Your task to perform on an android device: turn vacation reply on in the gmail app Image 0: 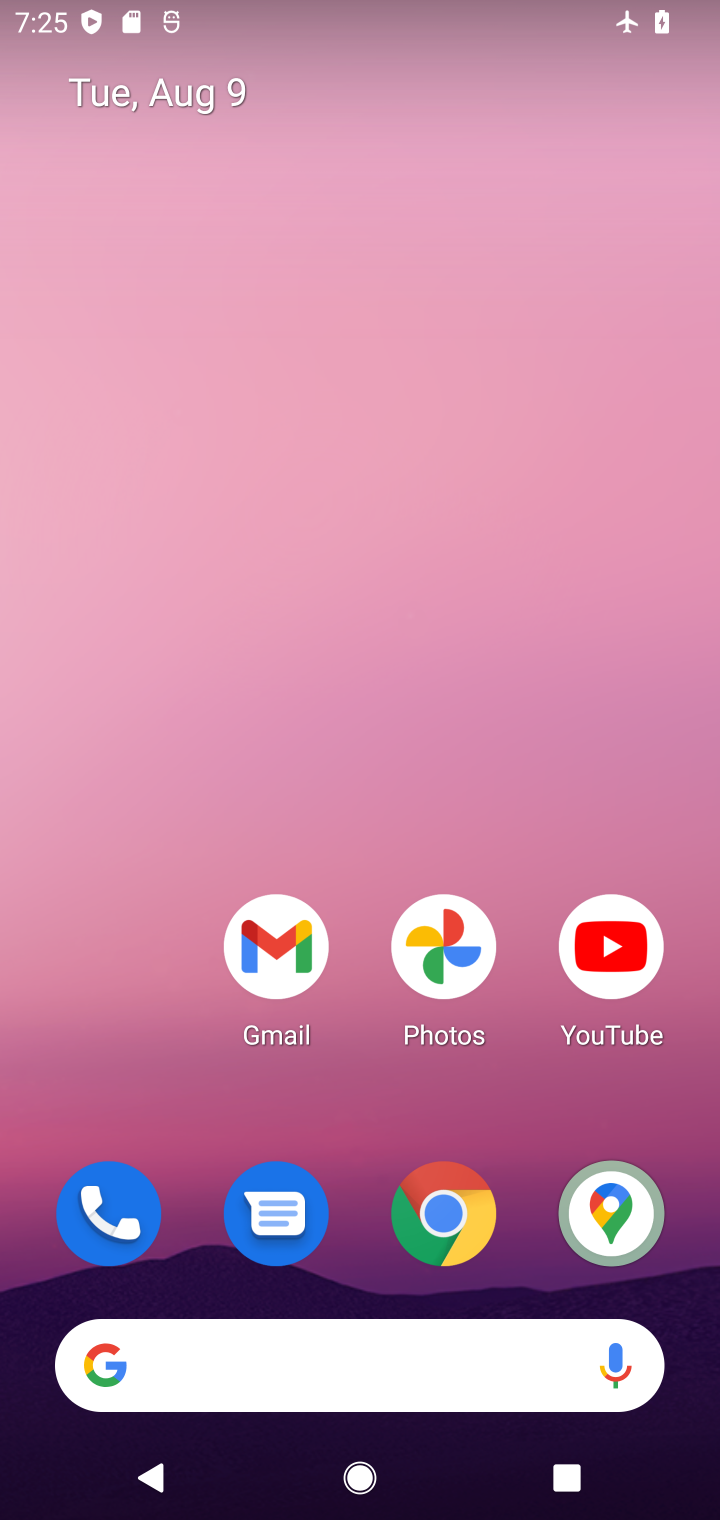
Step 0: drag from (379, 1276) to (322, 66)
Your task to perform on an android device: turn vacation reply on in the gmail app Image 1: 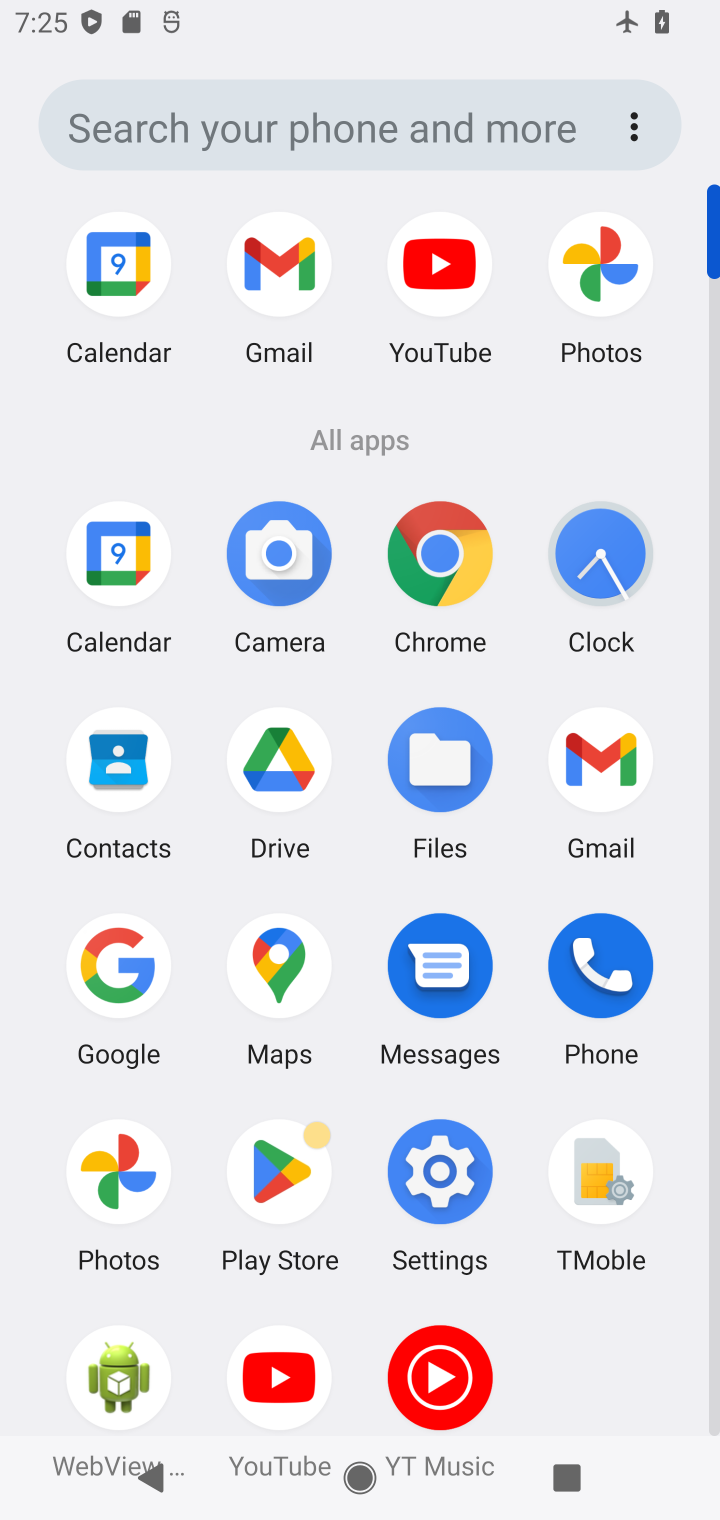
Step 1: click (561, 824)
Your task to perform on an android device: turn vacation reply on in the gmail app Image 2: 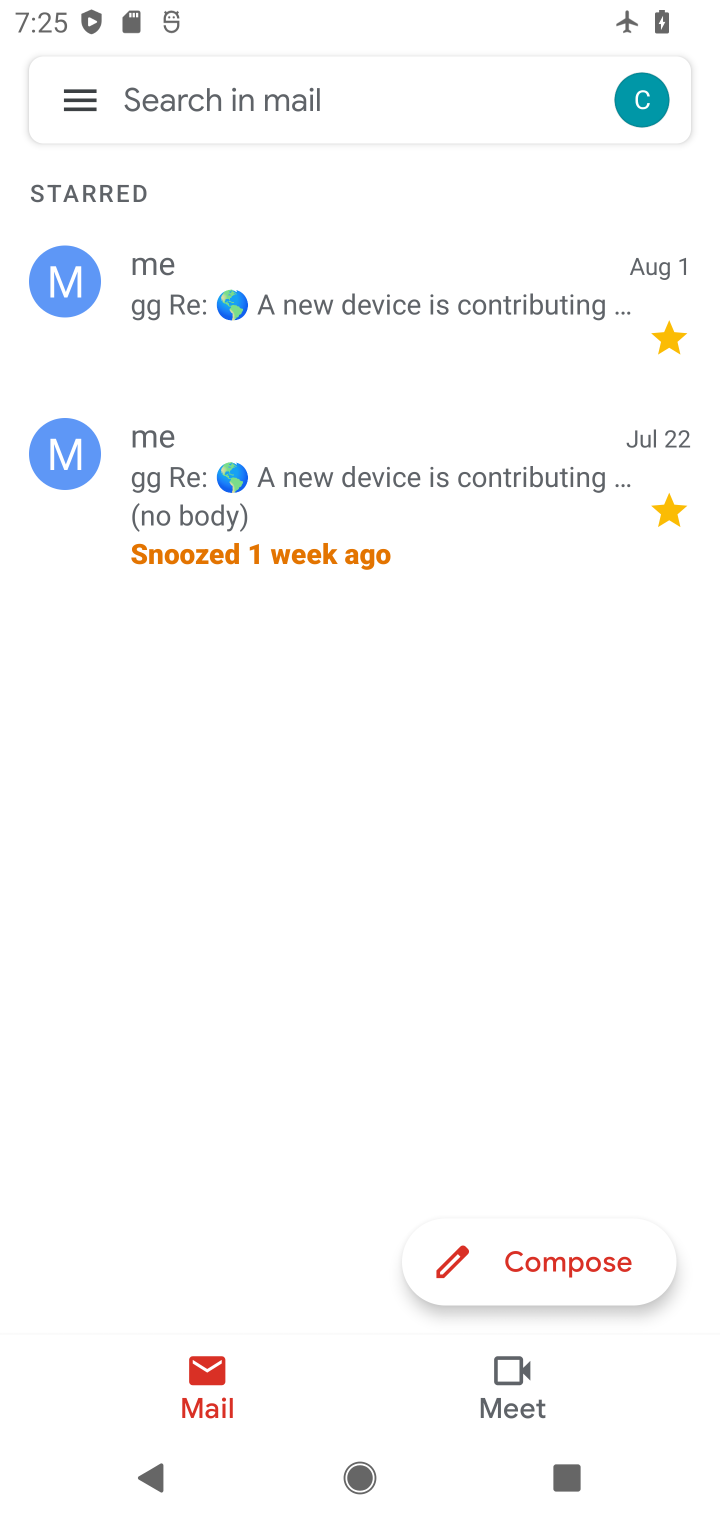
Step 2: click (94, 97)
Your task to perform on an android device: turn vacation reply on in the gmail app Image 3: 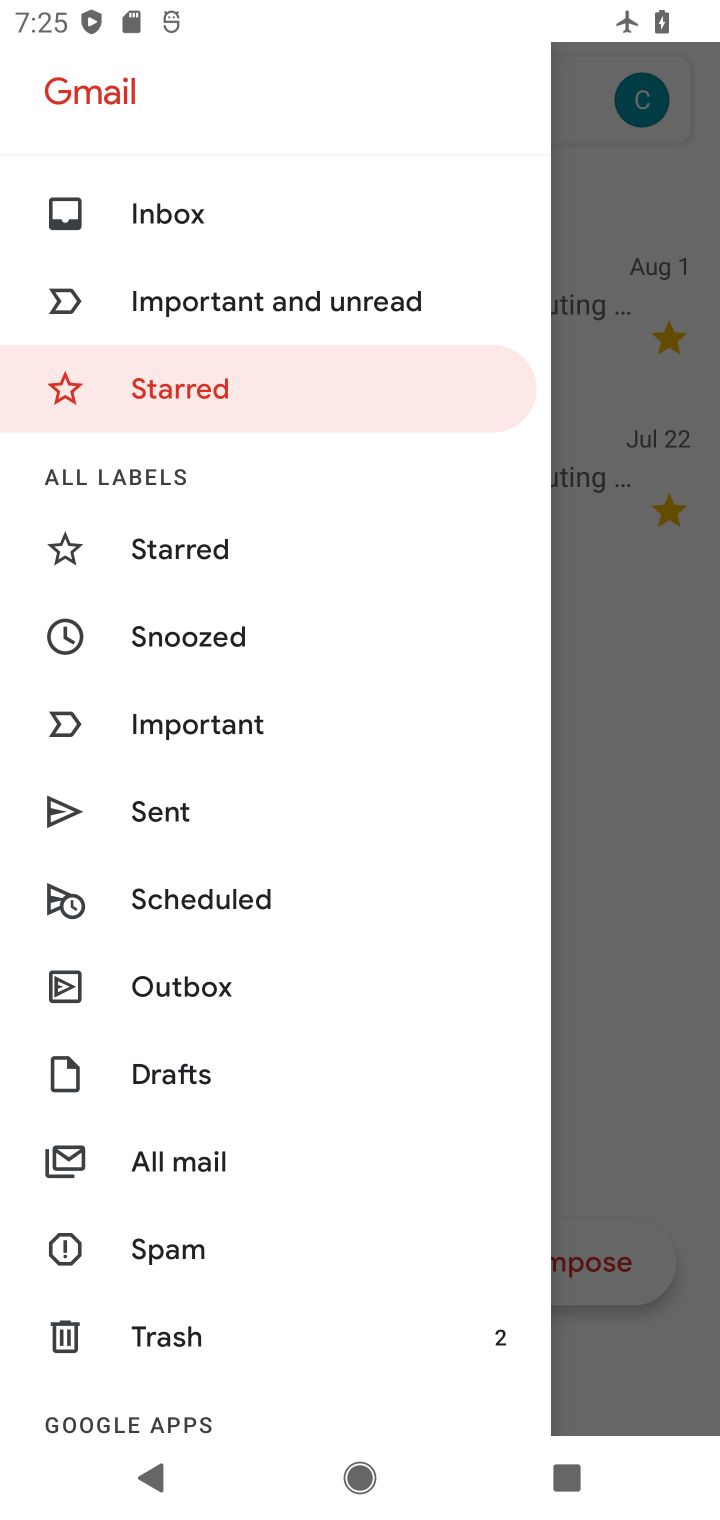
Step 3: drag from (275, 1105) to (234, 321)
Your task to perform on an android device: turn vacation reply on in the gmail app Image 4: 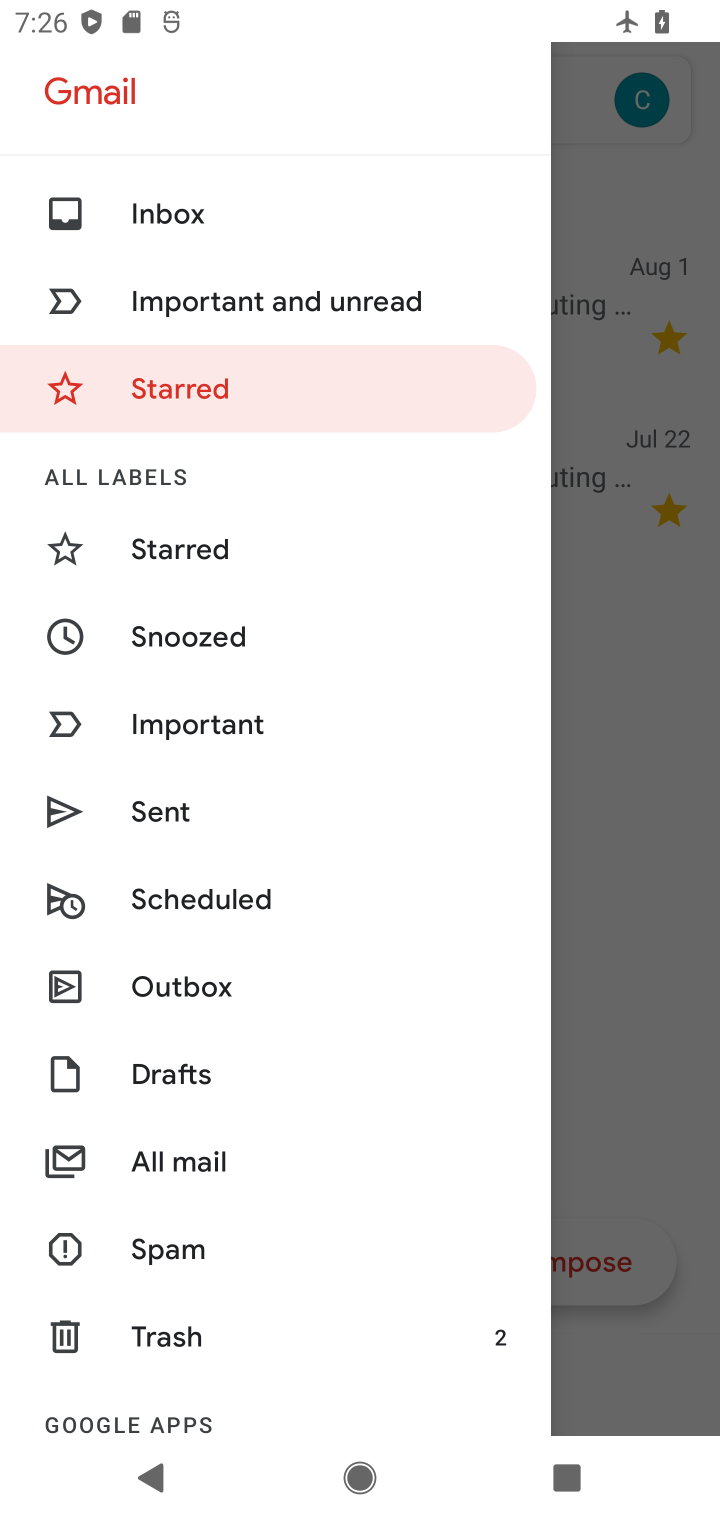
Step 4: drag from (409, 1300) to (363, 295)
Your task to perform on an android device: turn vacation reply on in the gmail app Image 5: 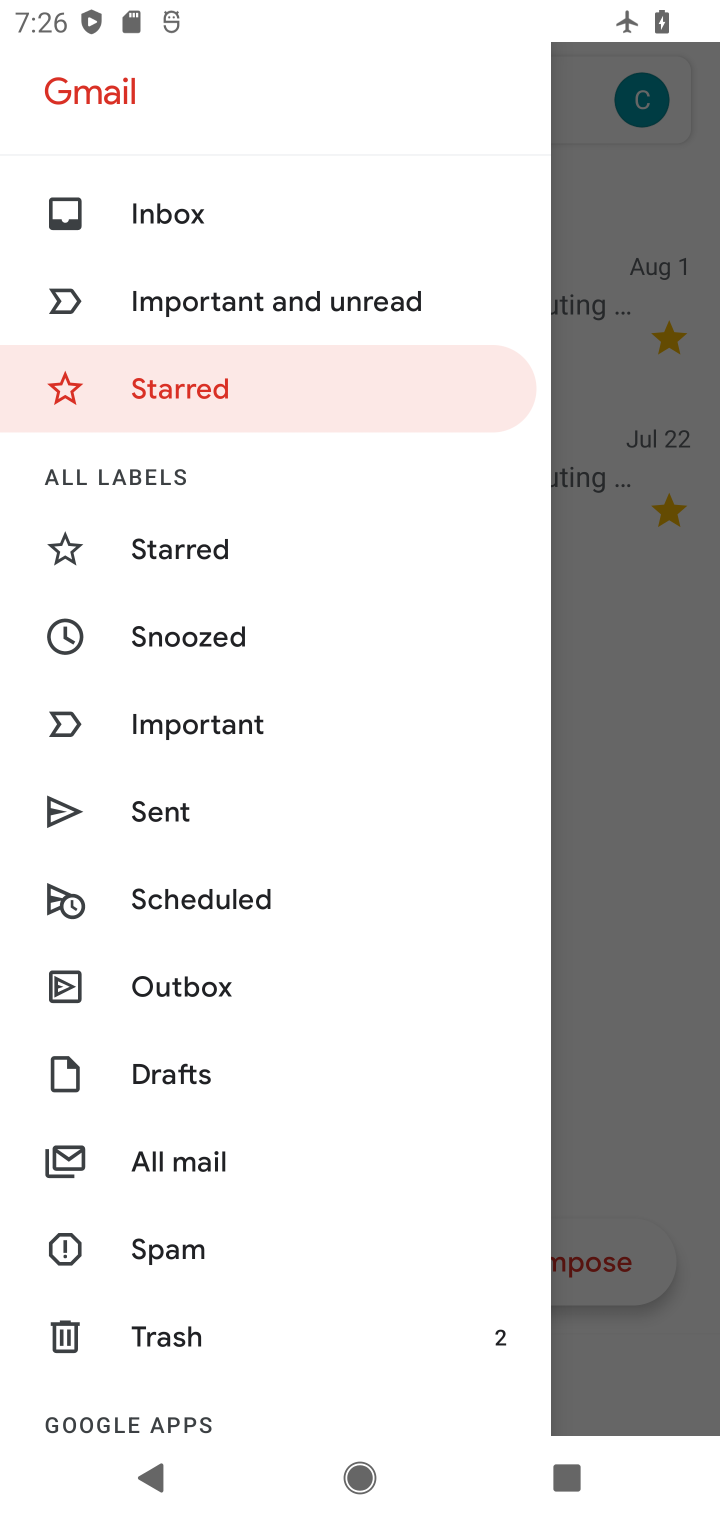
Step 5: drag from (357, 1191) to (396, 212)
Your task to perform on an android device: turn vacation reply on in the gmail app Image 6: 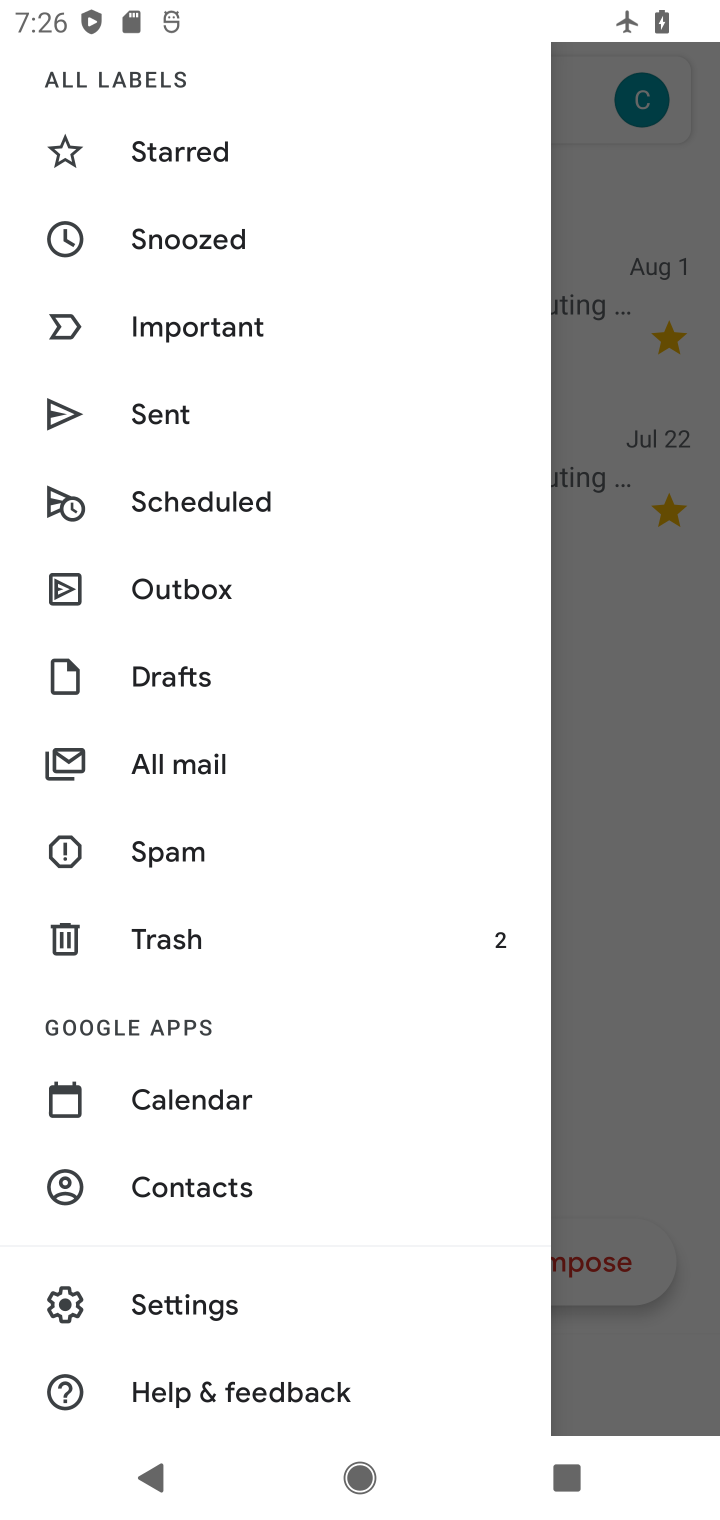
Step 6: click (192, 1282)
Your task to perform on an android device: turn vacation reply on in the gmail app Image 7: 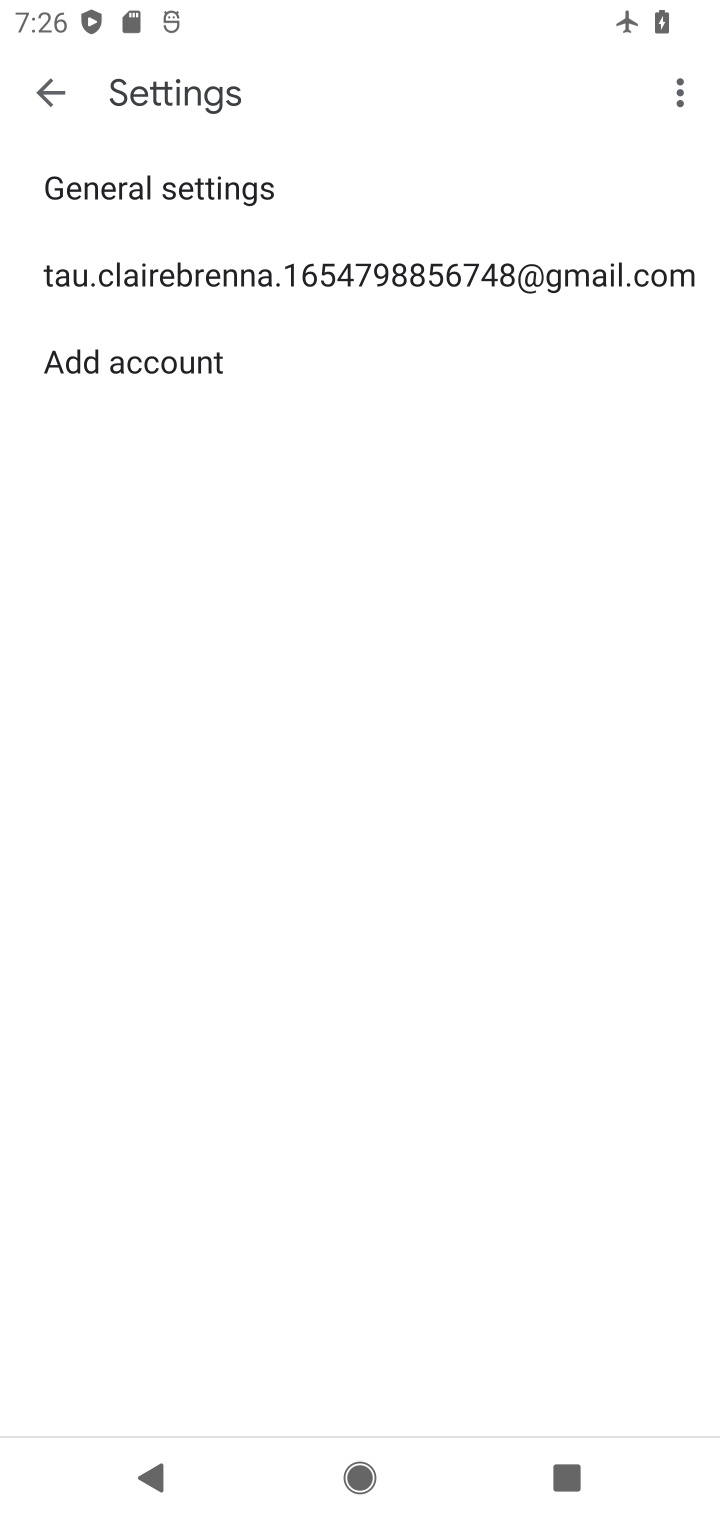
Step 7: click (122, 284)
Your task to perform on an android device: turn vacation reply on in the gmail app Image 8: 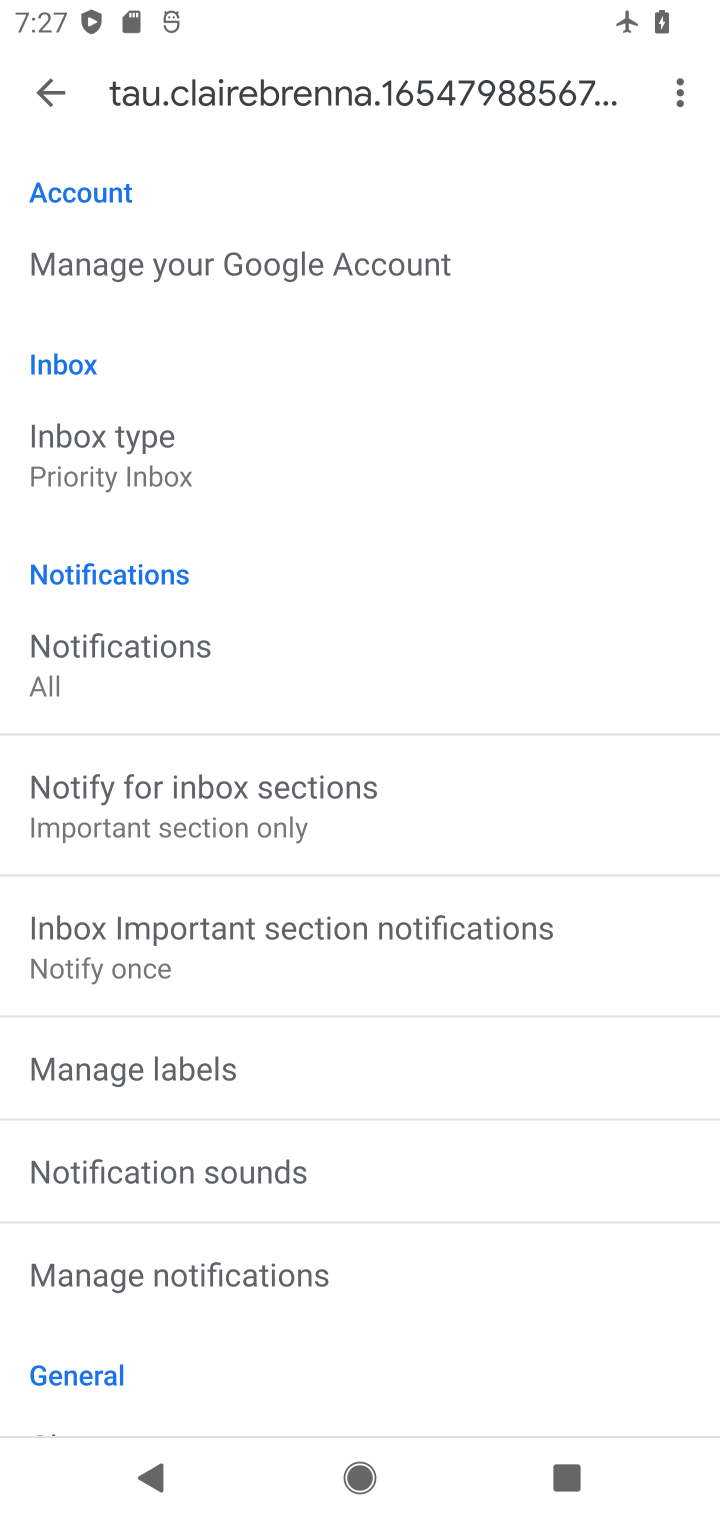
Step 8: drag from (376, 1096) to (198, 163)
Your task to perform on an android device: turn vacation reply on in the gmail app Image 9: 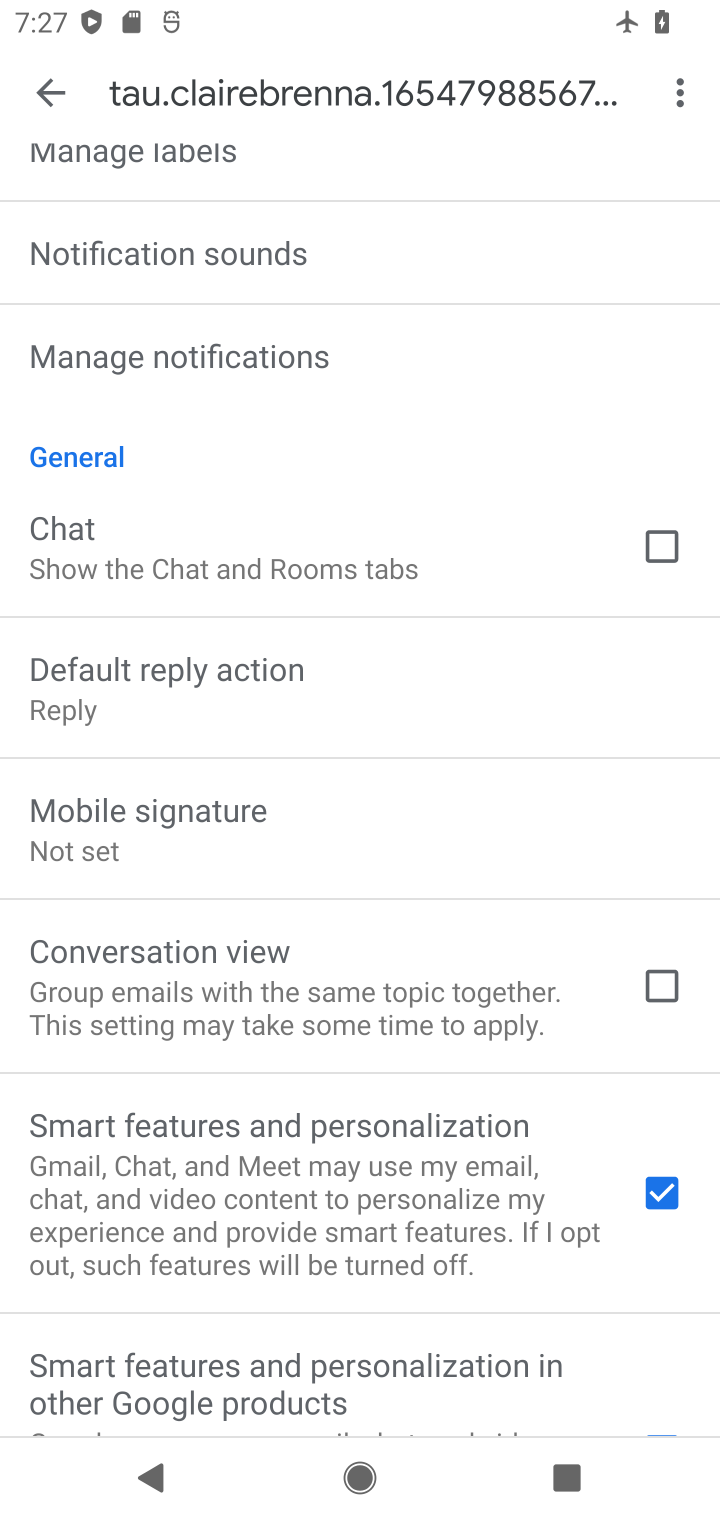
Step 9: drag from (307, 1250) to (283, 324)
Your task to perform on an android device: turn vacation reply on in the gmail app Image 10: 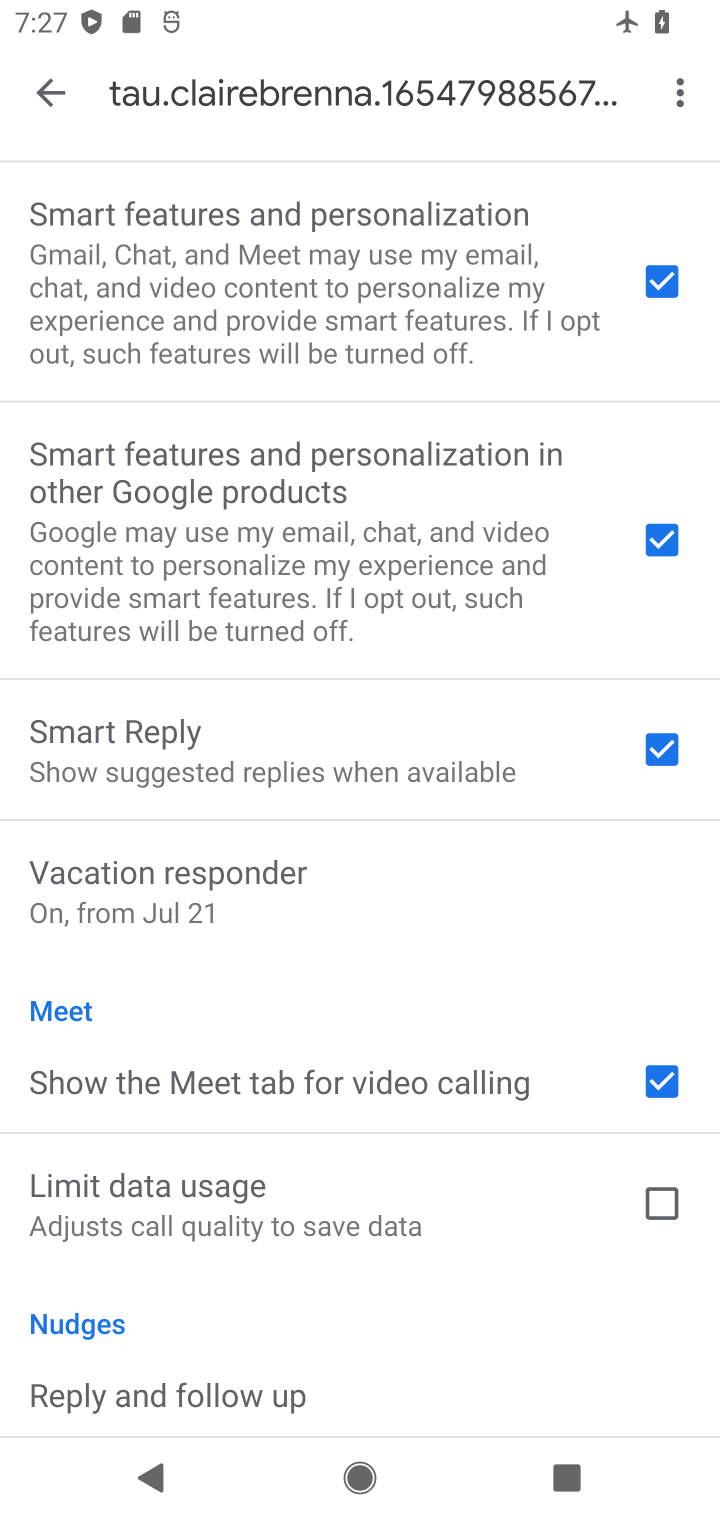
Step 10: click (374, 840)
Your task to perform on an android device: turn vacation reply on in the gmail app Image 11: 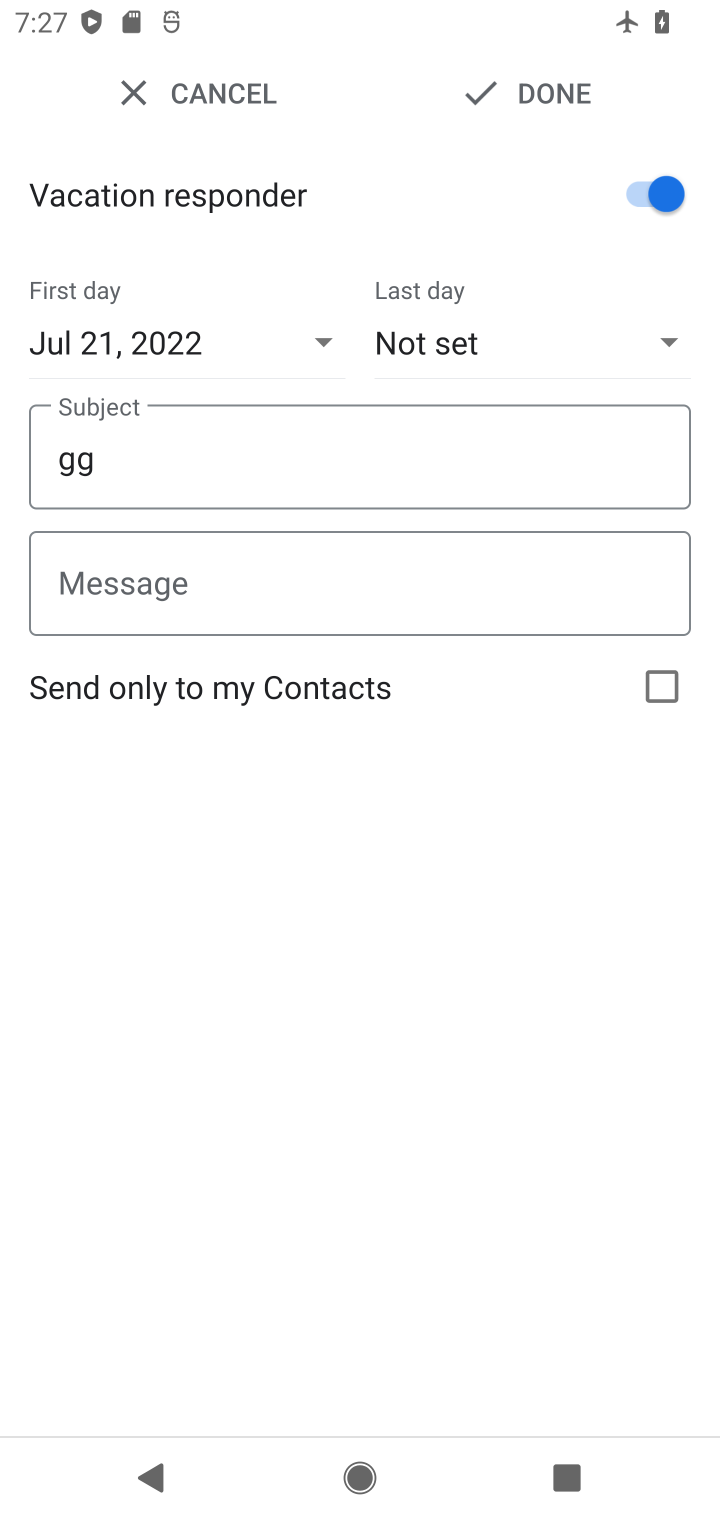
Step 11: click (488, 76)
Your task to perform on an android device: turn vacation reply on in the gmail app Image 12: 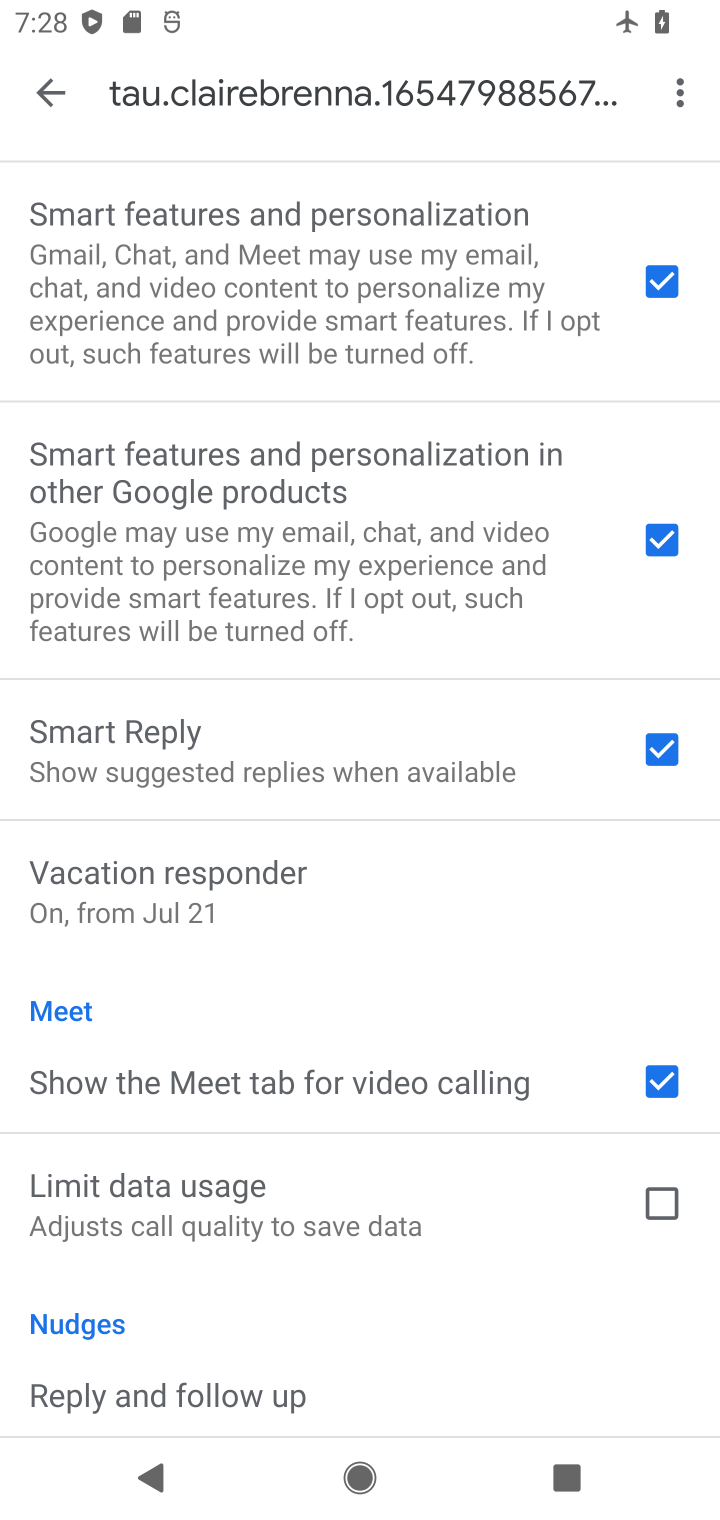
Step 12: task complete